Your task to perform on an android device: allow cookies in the chrome app Image 0: 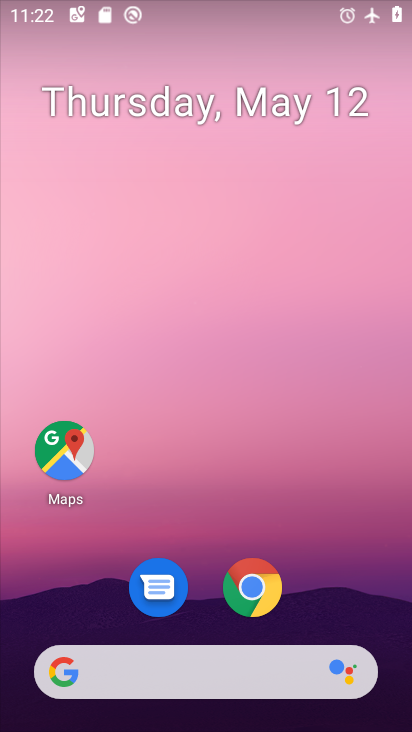
Step 0: drag from (389, 653) to (170, 261)
Your task to perform on an android device: allow cookies in the chrome app Image 1: 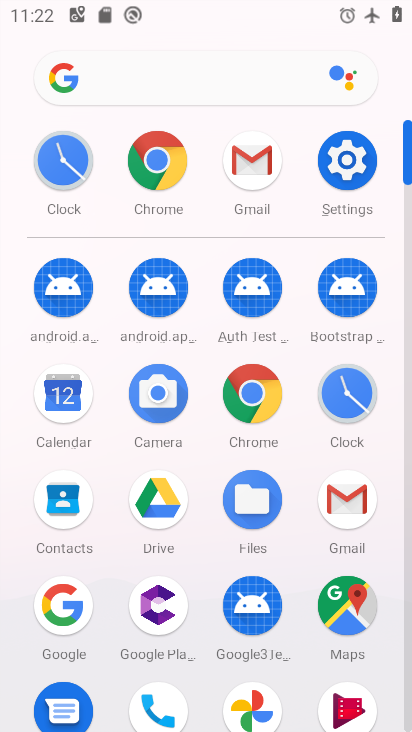
Step 1: click (269, 383)
Your task to perform on an android device: allow cookies in the chrome app Image 2: 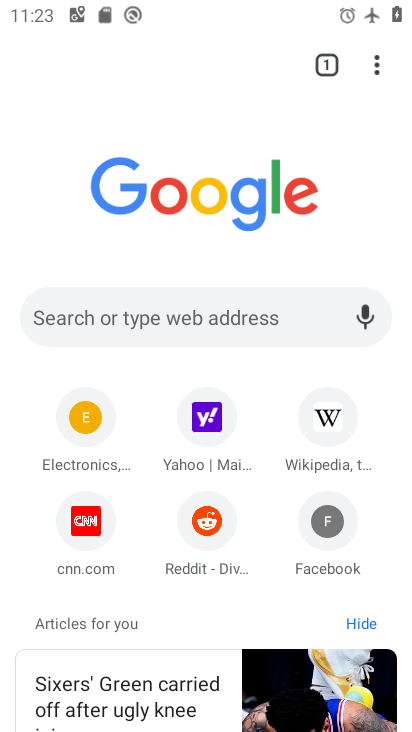
Step 2: click (379, 61)
Your task to perform on an android device: allow cookies in the chrome app Image 3: 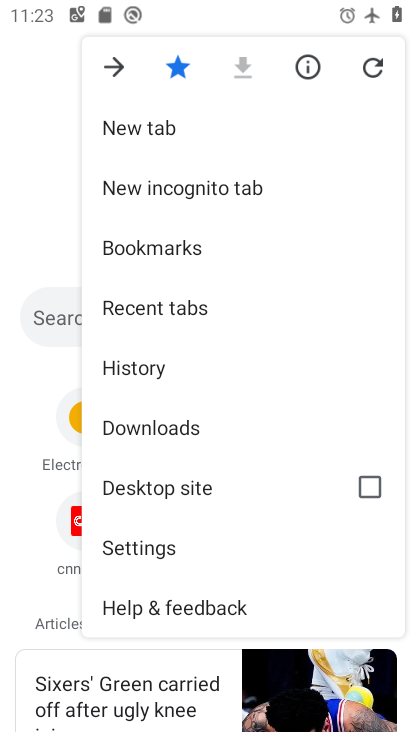
Step 3: click (173, 365)
Your task to perform on an android device: allow cookies in the chrome app Image 4: 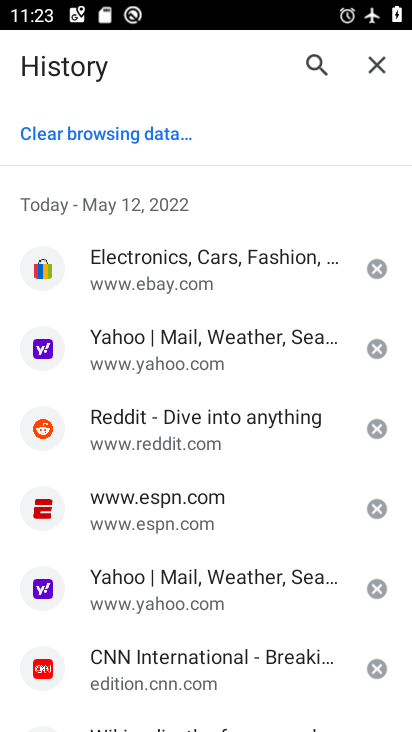
Step 4: click (157, 136)
Your task to perform on an android device: allow cookies in the chrome app Image 5: 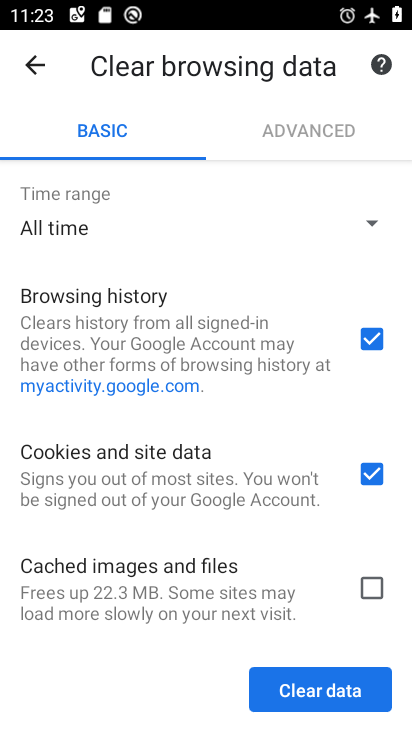
Step 5: task complete